Your task to perform on an android device: See recent photos Image 0: 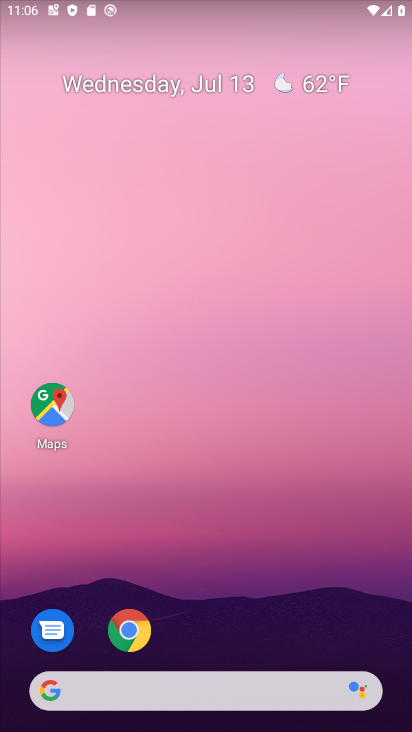
Step 0: drag from (309, 522) to (288, 65)
Your task to perform on an android device: See recent photos Image 1: 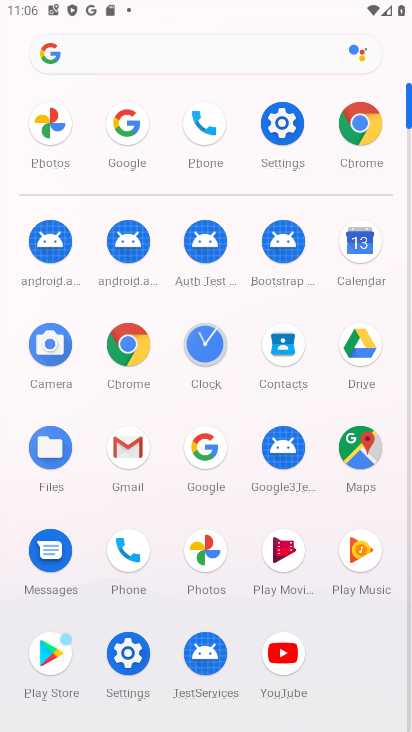
Step 1: click (201, 541)
Your task to perform on an android device: See recent photos Image 2: 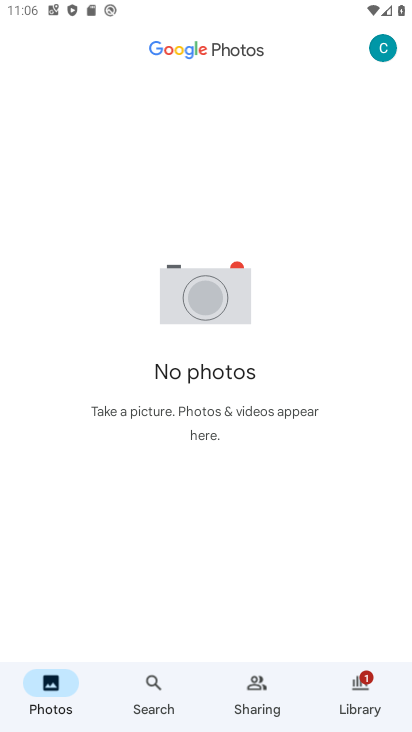
Step 2: task complete